Your task to perform on an android device: toggle airplane mode Image 0: 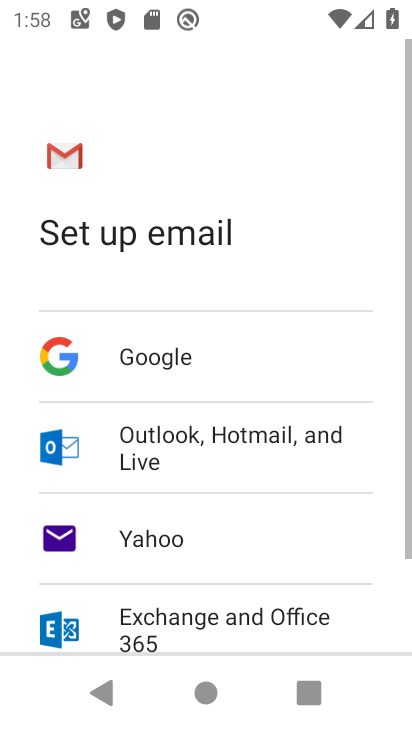
Step 0: press home button
Your task to perform on an android device: toggle airplane mode Image 1: 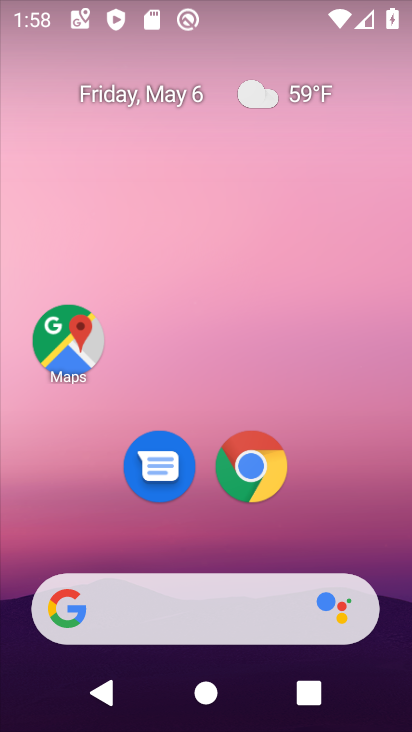
Step 1: drag from (196, 539) to (230, 46)
Your task to perform on an android device: toggle airplane mode Image 2: 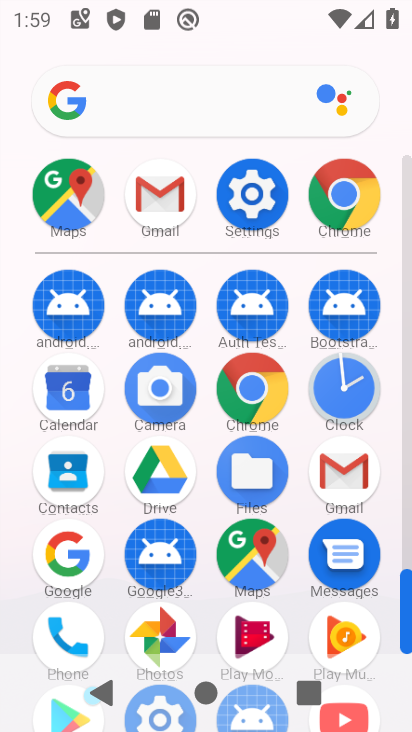
Step 2: drag from (271, 6) to (282, 649)
Your task to perform on an android device: toggle airplane mode Image 3: 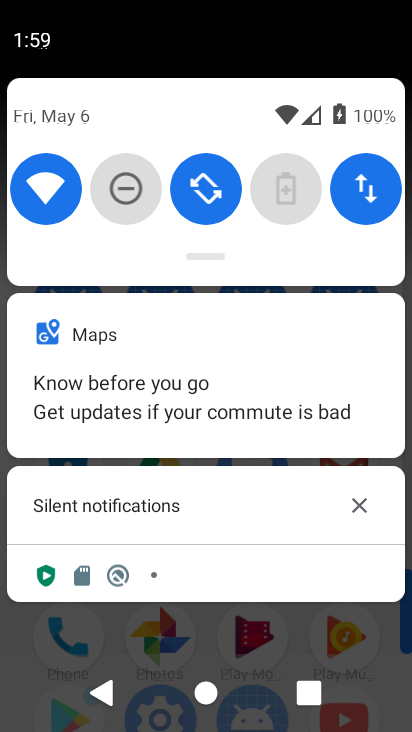
Step 3: drag from (228, 254) to (228, 708)
Your task to perform on an android device: toggle airplane mode Image 4: 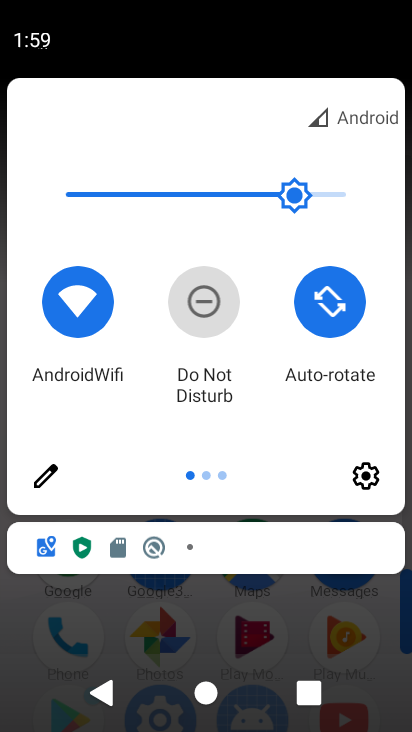
Step 4: drag from (351, 343) to (47, 310)
Your task to perform on an android device: toggle airplane mode Image 5: 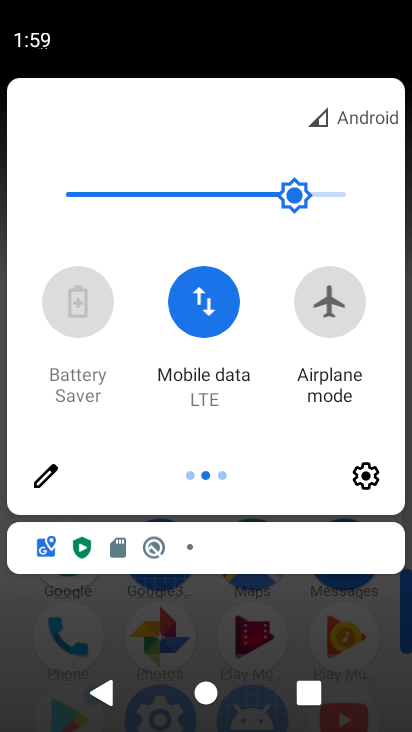
Step 5: click (331, 305)
Your task to perform on an android device: toggle airplane mode Image 6: 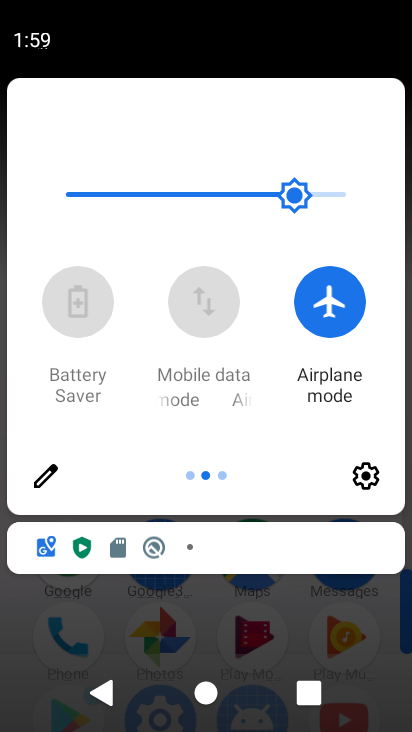
Step 6: task complete